Your task to perform on an android device: Look up the best rated bike seats on Target Image 0: 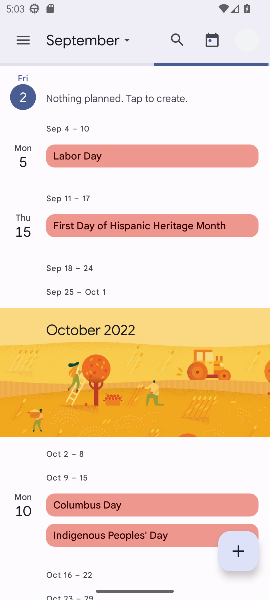
Step 0: press home button
Your task to perform on an android device: Look up the best rated bike seats on Target Image 1: 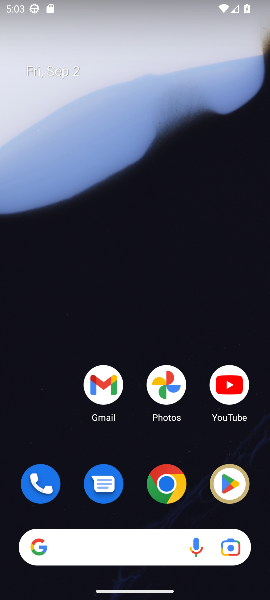
Step 1: click (176, 480)
Your task to perform on an android device: Look up the best rated bike seats on Target Image 2: 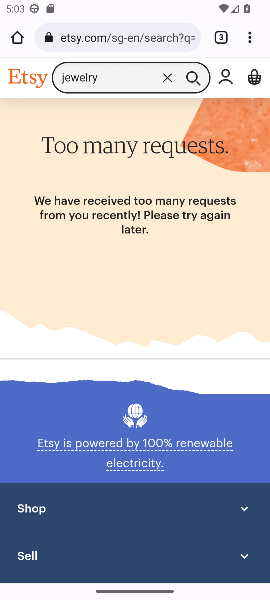
Step 2: click (154, 40)
Your task to perform on an android device: Look up the best rated bike seats on Target Image 3: 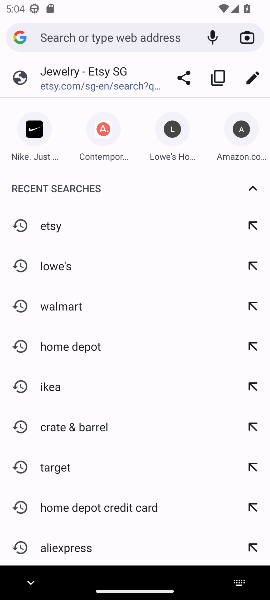
Step 3: type " Target"
Your task to perform on an android device: Look up the best rated bike seats on Target Image 4: 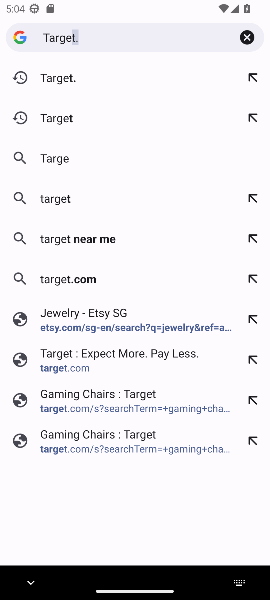
Step 4: press enter
Your task to perform on an android device: Look up the best rated bike seats on Target Image 5: 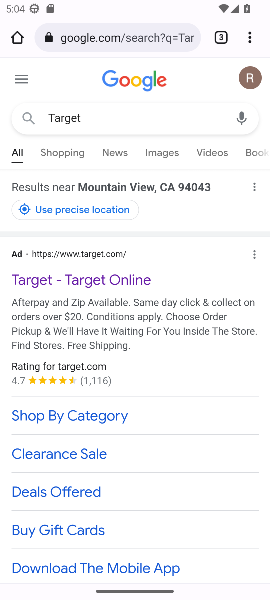
Step 5: click (98, 279)
Your task to perform on an android device: Look up the best rated bike seats on Target Image 6: 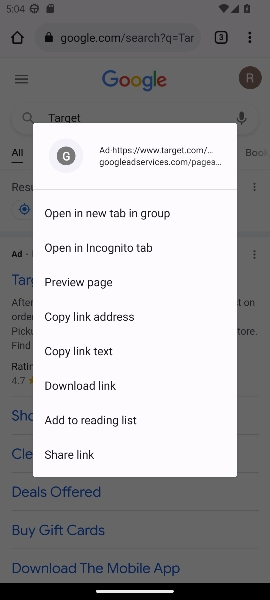
Step 6: click (257, 360)
Your task to perform on an android device: Look up the best rated bike seats on Target Image 7: 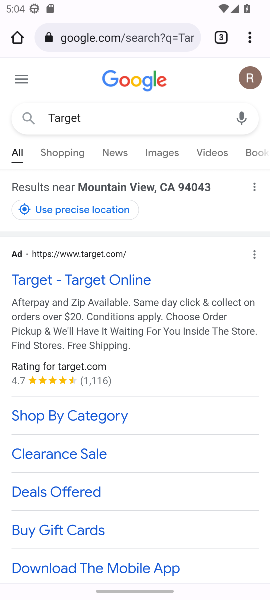
Step 7: click (54, 285)
Your task to perform on an android device: Look up the best rated bike seats on Target Image 8: 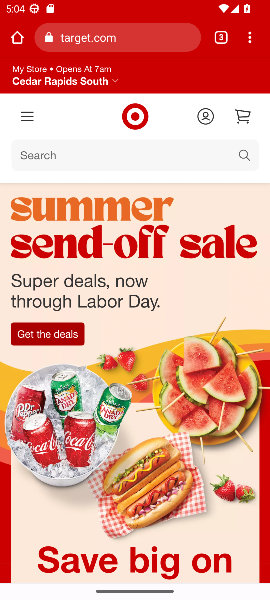
Step 8: click (239, 153)
Your task to perform on an android device: Look up the best rated bike seats on Target Image 9: 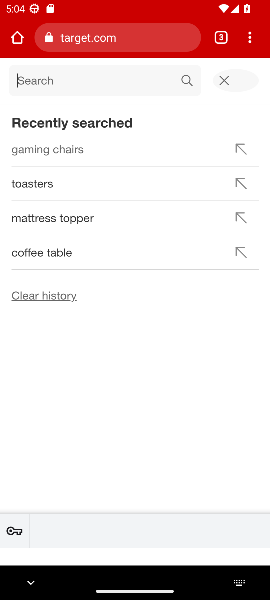
Step 9: press enter
Your task to perform on an android device: Look up the best rated bike seats on Target Image 10: 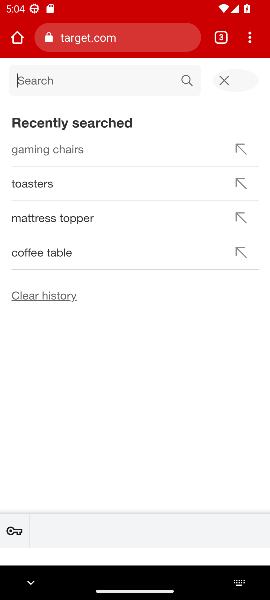
Step 10: type "bike seats"
Your task to perform on an android device: Look up the best rated bike seats on Target Image 11: 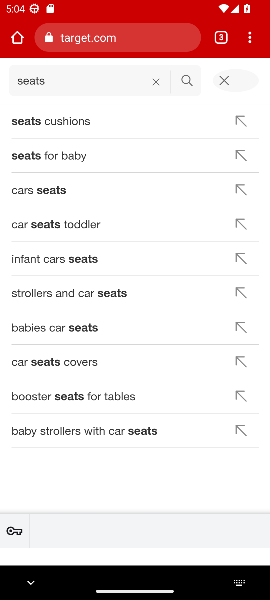
Step 11: click (154, 73)
Your task to perform on an android device: Look up the best rated bike seats on Target Image 12: 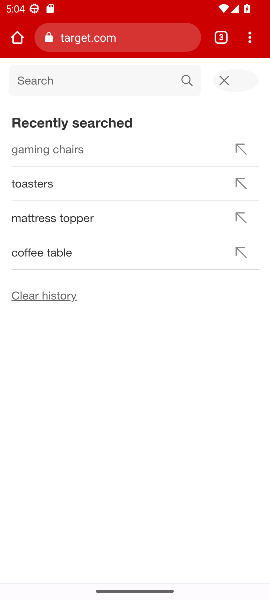
Step 12: click (16, 82)
Your task to perform on an android device: Look up the best rated bike seats on Target Image 13: 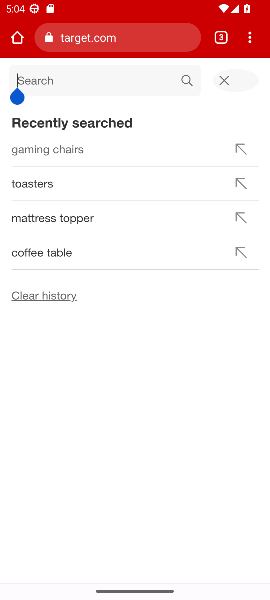
Step 13: click (27, 78)
Your task to perform on an android device: Look up the best rated bike seats on Target Image 14: 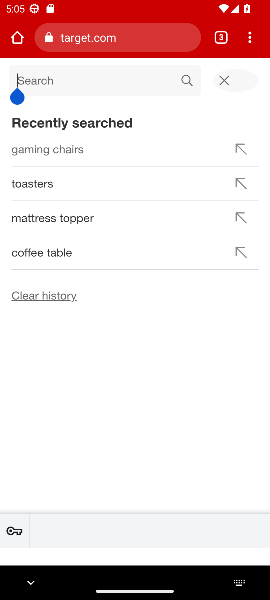
Step 14: press enter
Your task to perform on an android device: Look up the best rated bike seats on Target Image 15: 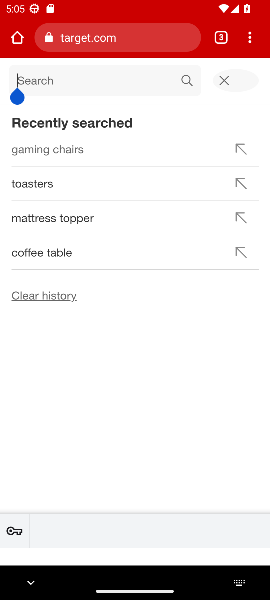
Step 15: type "bike seats"
Your task to perform on an android device: Look up the best rated bike seats on Target Image 16: 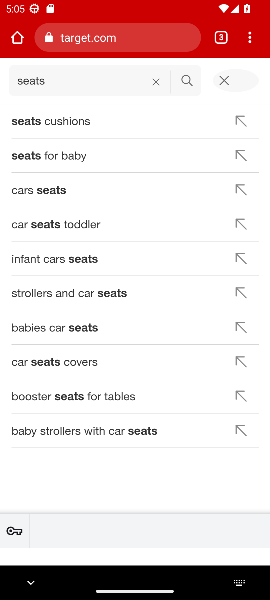
Step 16: click (29, 123)
Your task to perform on an android device: Look up the best rated bike seats on Target Image 17: 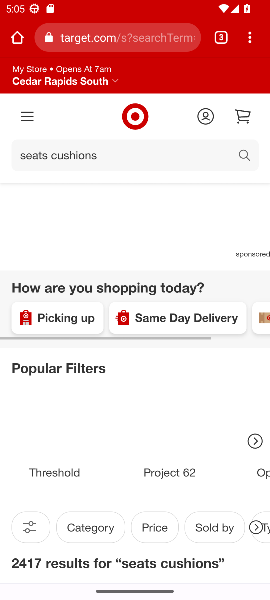
Step 17: task complete